Your task to perform on an android device: uninstall "Messages" Image 0: 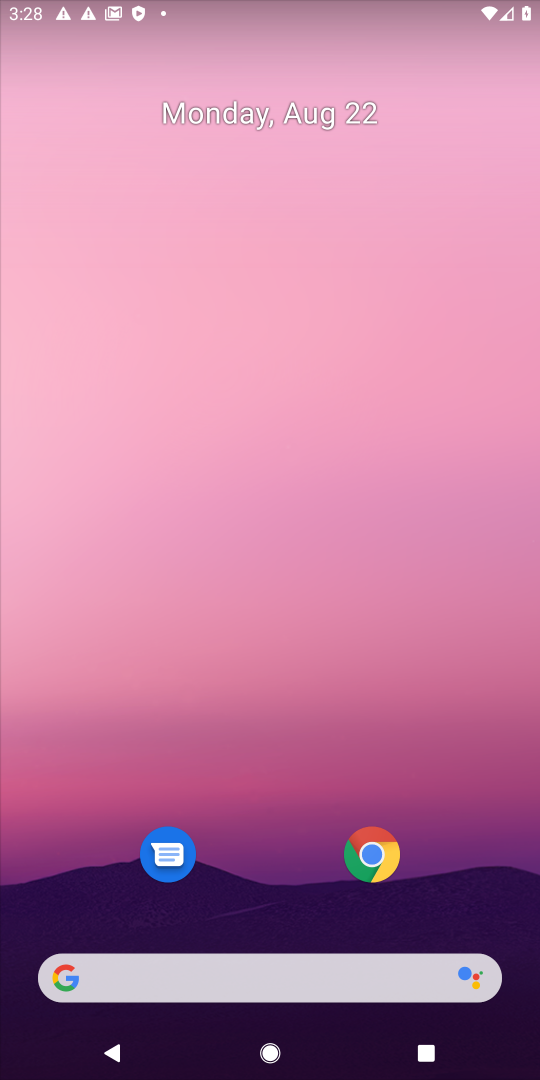
Step 0: click (170, 856)
Your task to perform on an android device: uninstall "Messages" Image 1: 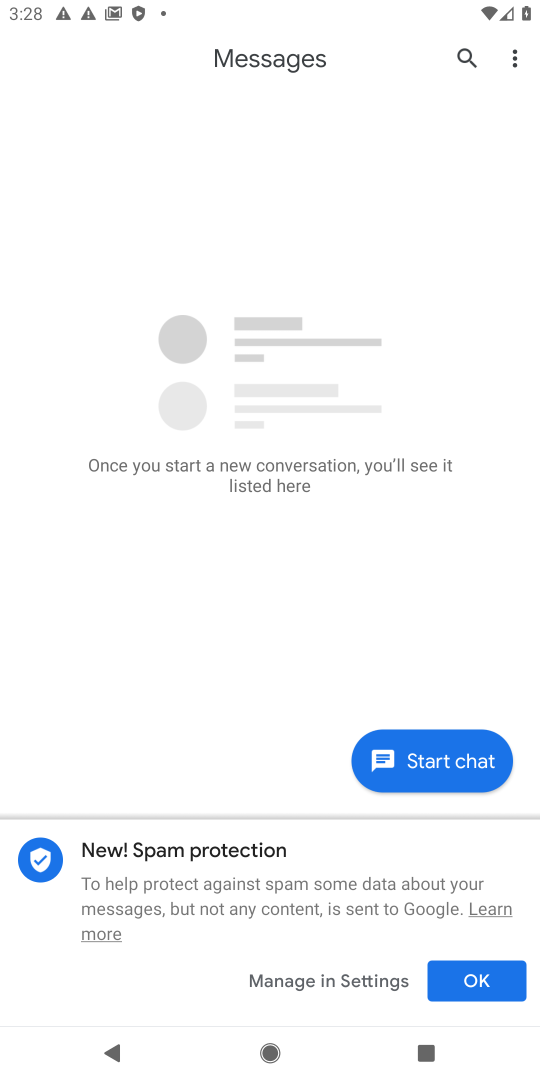
Step 1: press home button
Your task to perform on an android device: uninstall "Messages" Image 2: 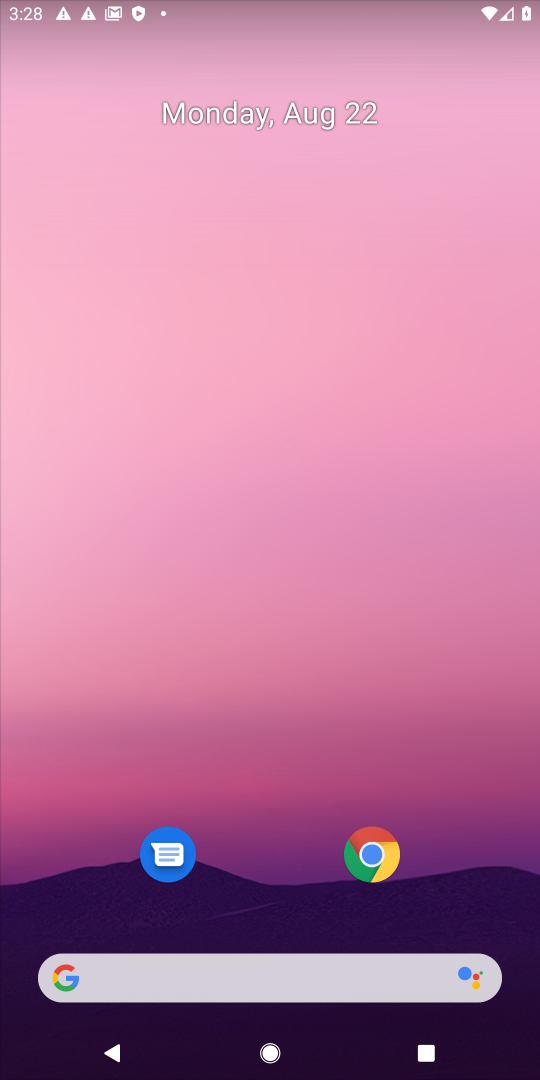
Step 2: drag from (256, 869) to (293, 74)
Your task to perform on an android device: uninstall "Messages" Image 3: 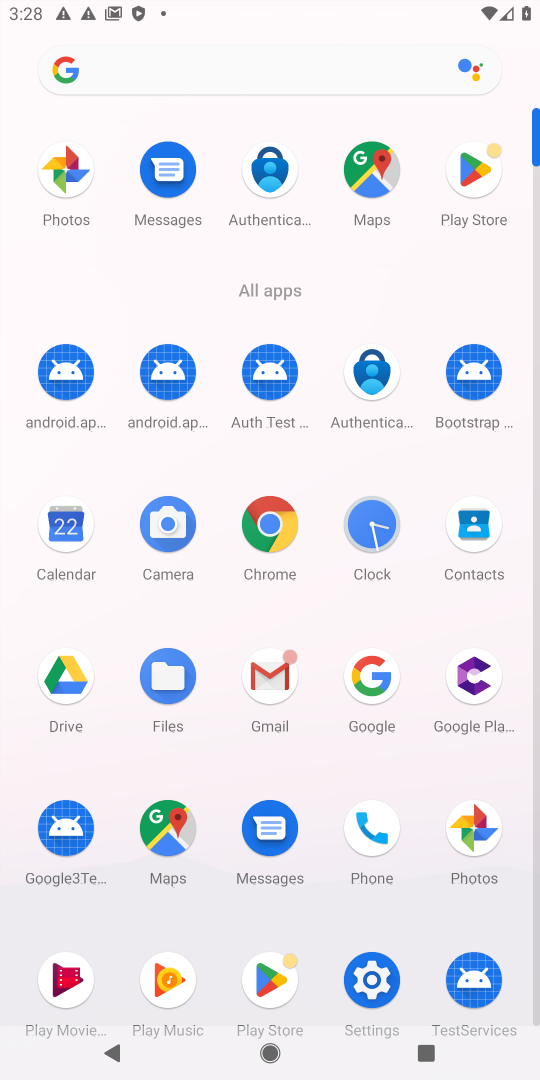
Step 3: click (475, 170)
Your task to perform on an android device: uninstall "Messages" Image 4: 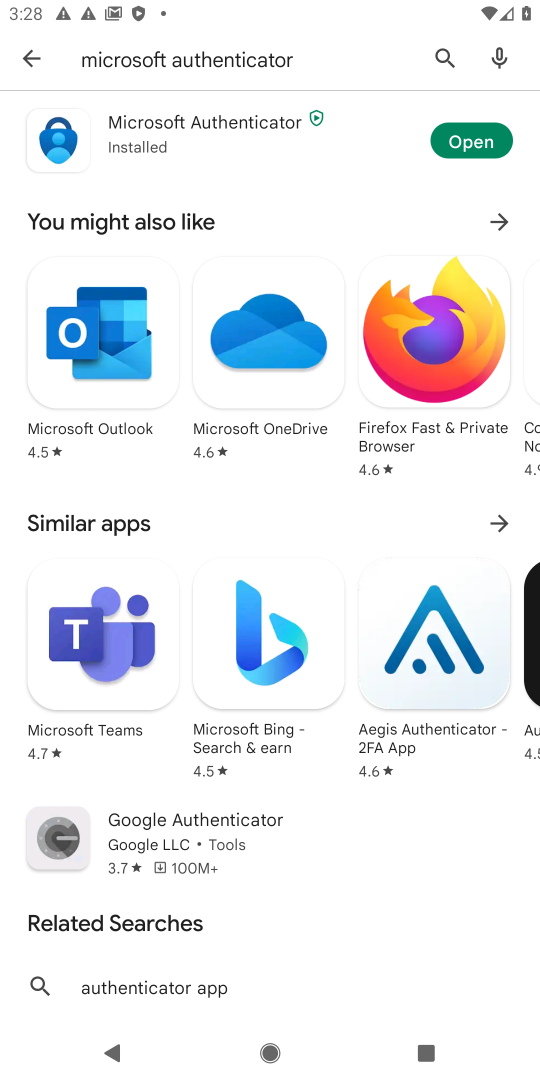
Step 4: click (443, 50)
Your task to perform on an android device: uninstall "Messages" Image 5: 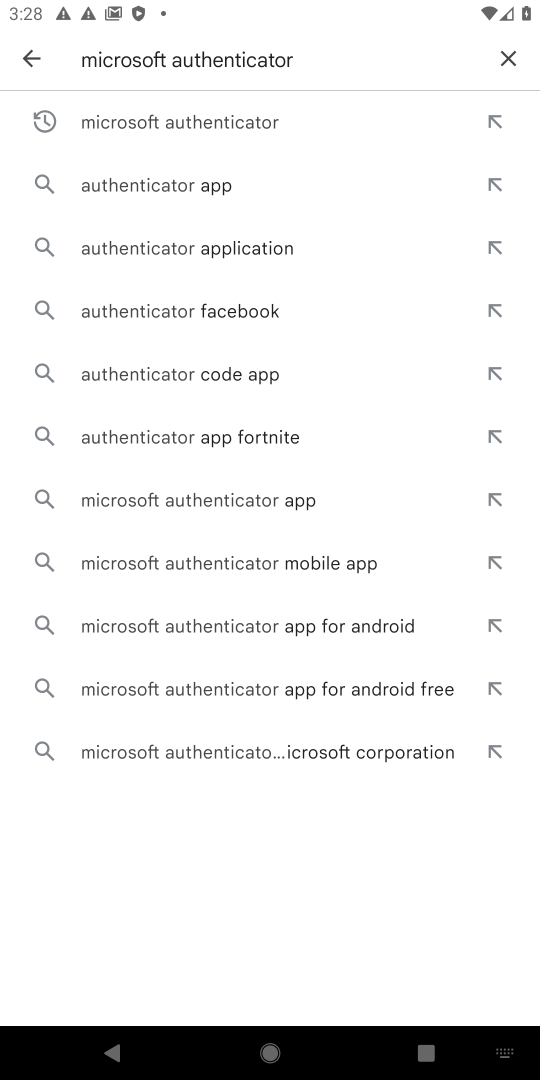
Step 5: click (504, 50)
Your task to perform on an android device: uninstall "Messages" Image 6: 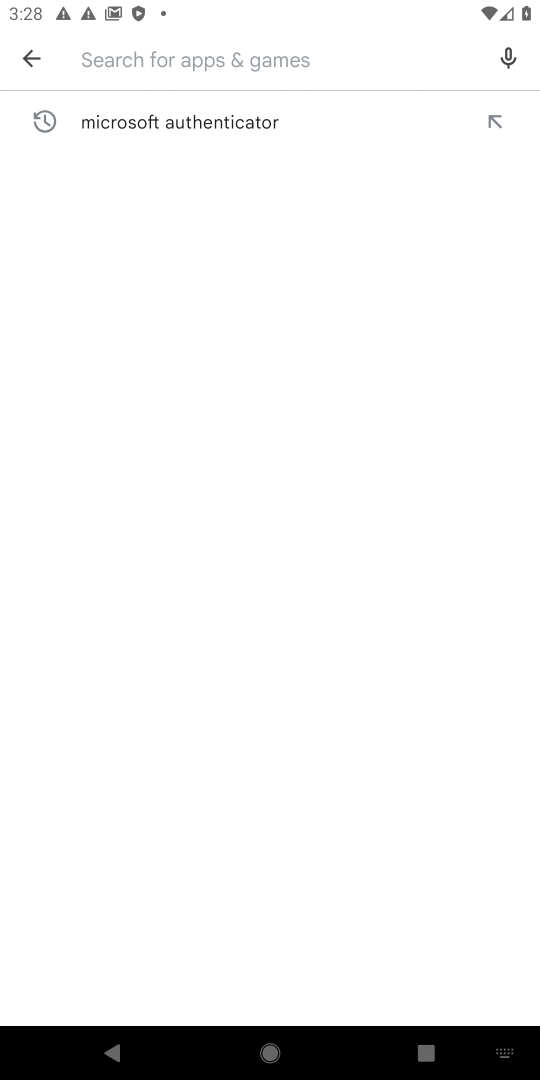
Step 6: type "Messages"
Your task to perform on an android device: uninstall "Messages" Image 7: 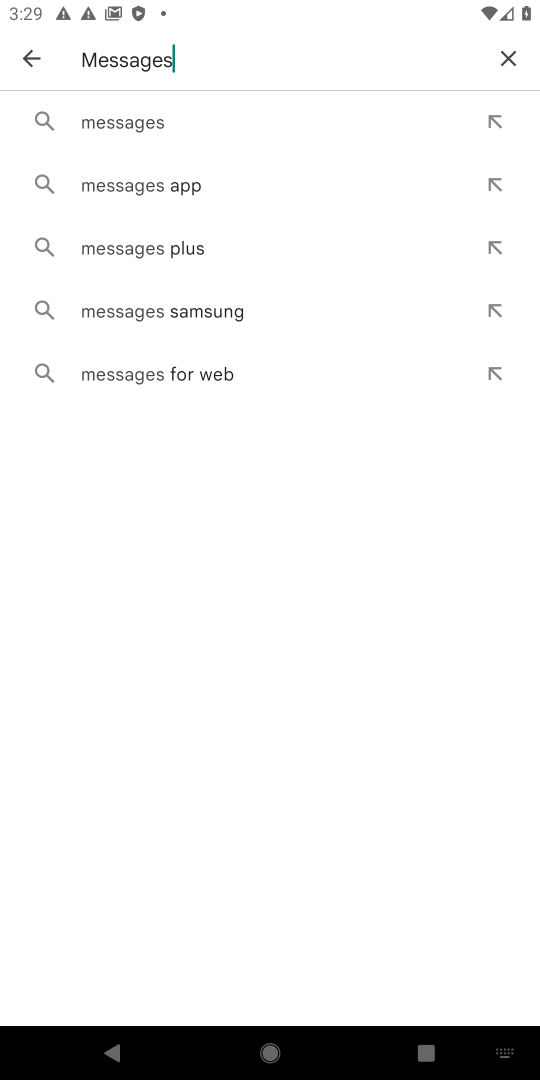
Step 7: click (102, 120)
Your task to perform on an android device: uninstall "Messages" Image 8: 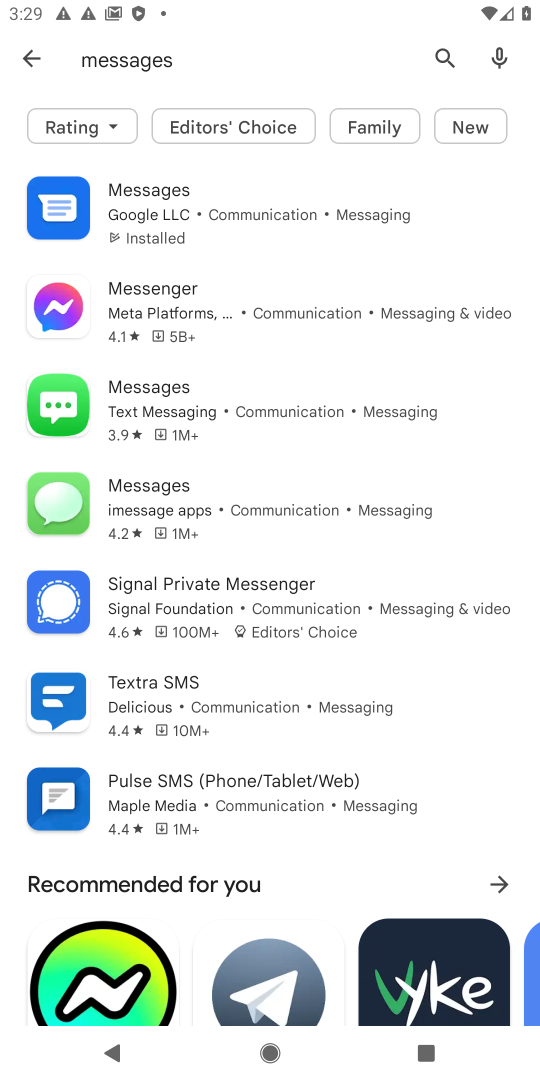
Step 8: click (159, 198)
Your task to perform on an android device: uninstall "Messages" Image 9: 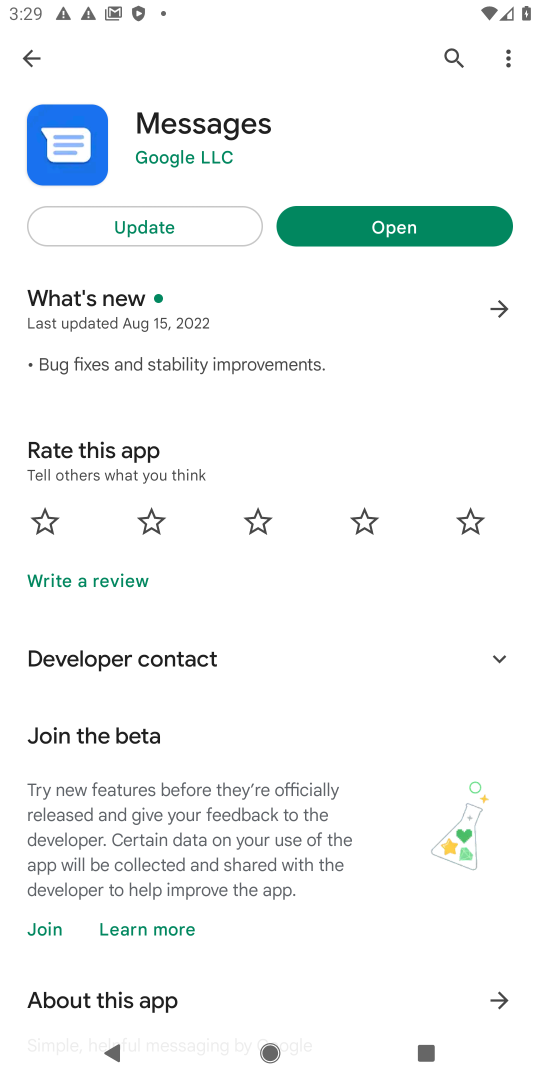
Step 9: task complete